Your task to perform on an android device: What is the news today? Image 0: 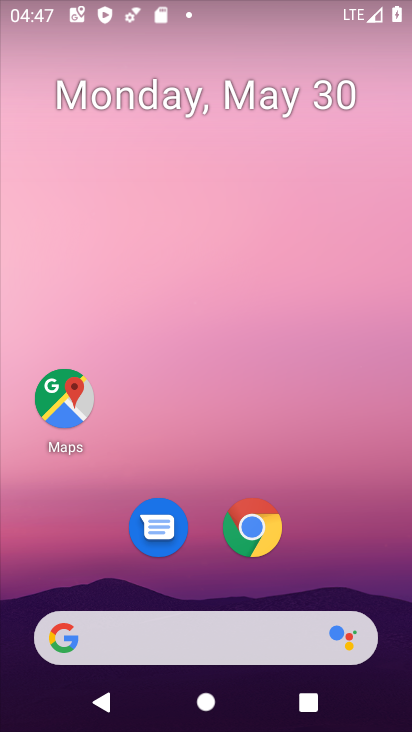
Step 0: drag from (0, 244) to (349, 249)
Your task to perform on an android device: What is the news today? Image 1: 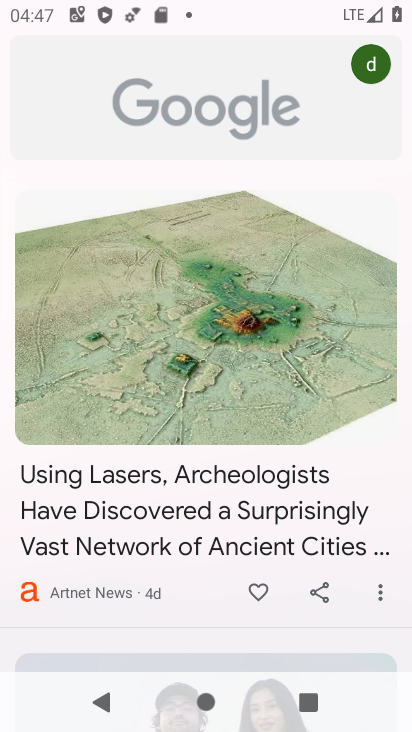
Step 1: task complete